Your task to perform on an android device: Open ESPN.com Image 0: 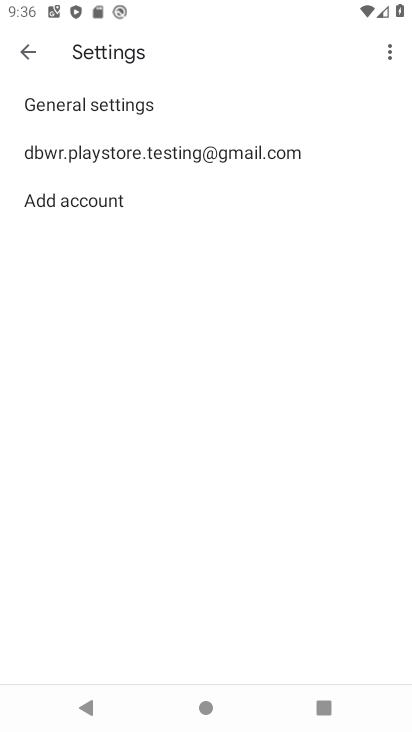
Step 0: press home button
Your task to perform on an android device: Open ESPN.com Image 1: 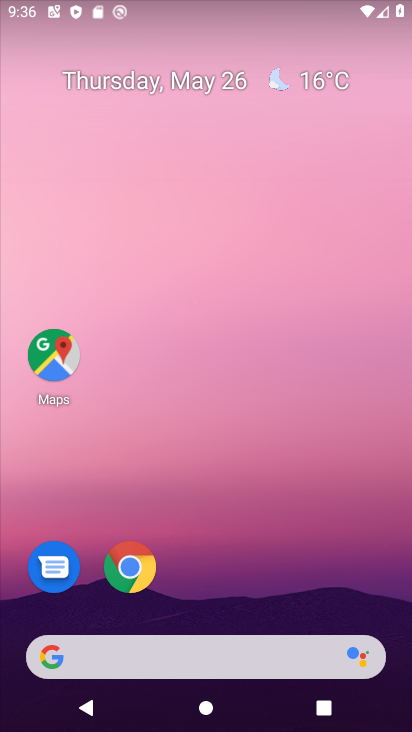
Step 1: click (128, 577)
Your task to perform on an android device: Open ESPN.com Image 2: 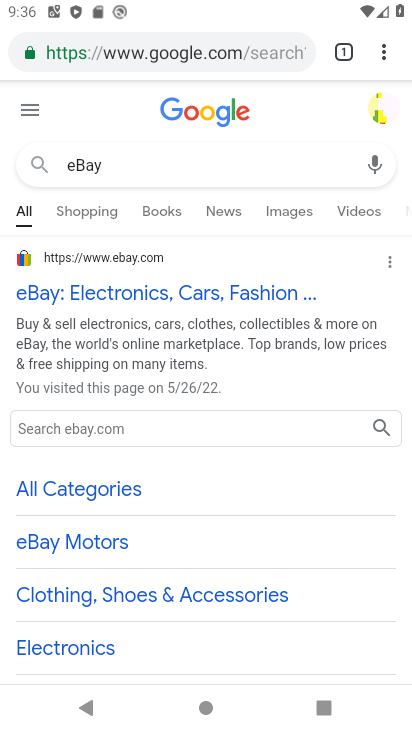
Step 2: click (301, 50)
Your task to perform on an android device: Open ESPN.com Image 3: 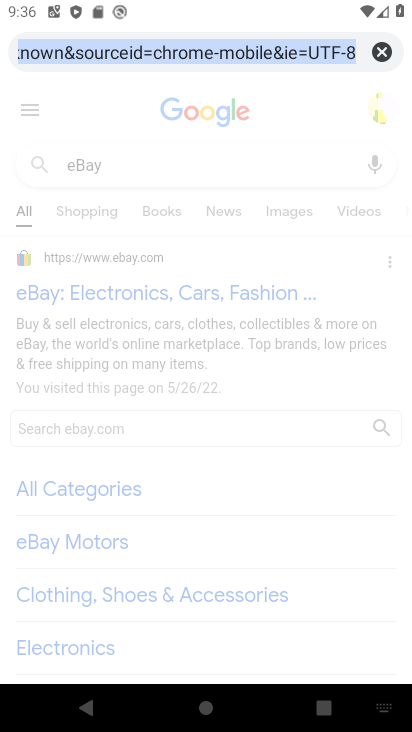
Step 3: click (376, 46)
Your task to perform on an android device: Open ESPN.com Image 4: 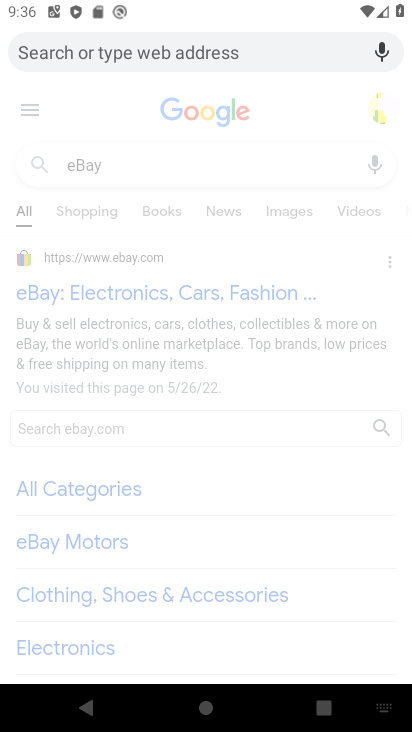
Step 4: type " ESPN.com"
Your task to perform on an android device: Open ESPN.com Image 5: 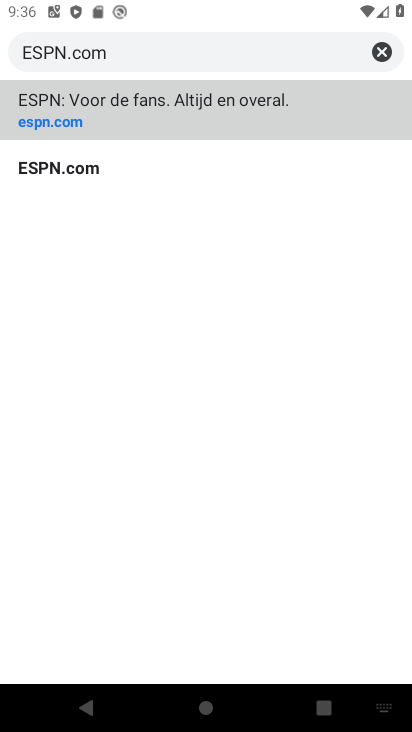
Step 5: click (69, 172)
Your task to perform on an android device: Open ESPN.com Image 6: 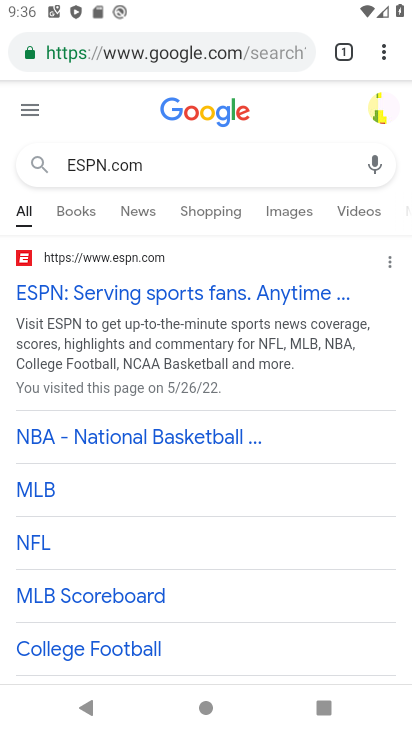
Step 6: task complete